Your task to perform on an android device: toggle priority inbox in the gmail app Image 0: 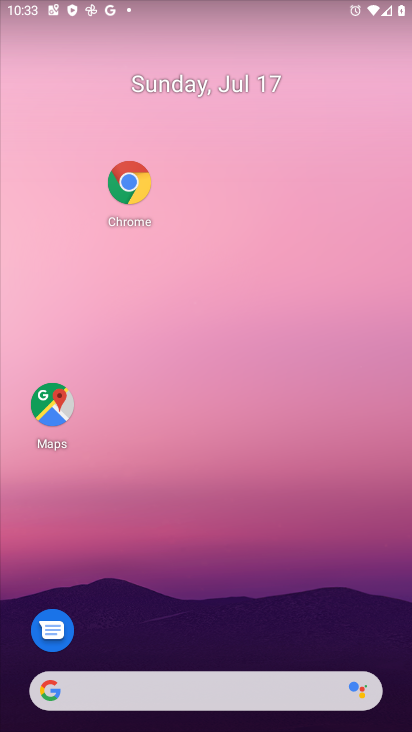
Step 0: drag from (174, 585) to (149, 46)
Your task to perform on an android device: toggle priority inbox in the gmail app Image 1: 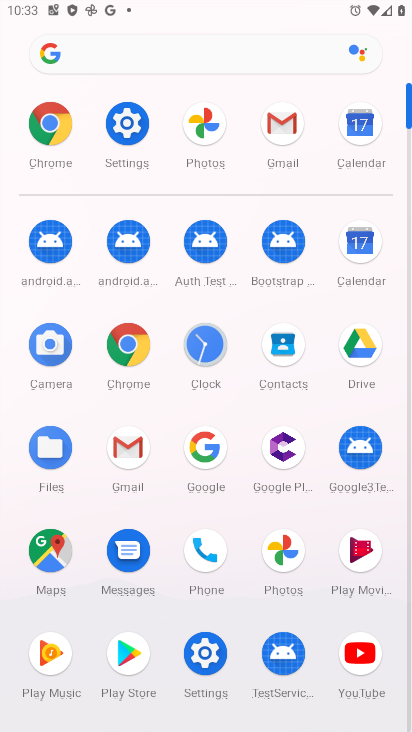
Step 1: click (283, 132)
Your task to perform on an android device: toggle priority inbox in the gmail app Image 2: 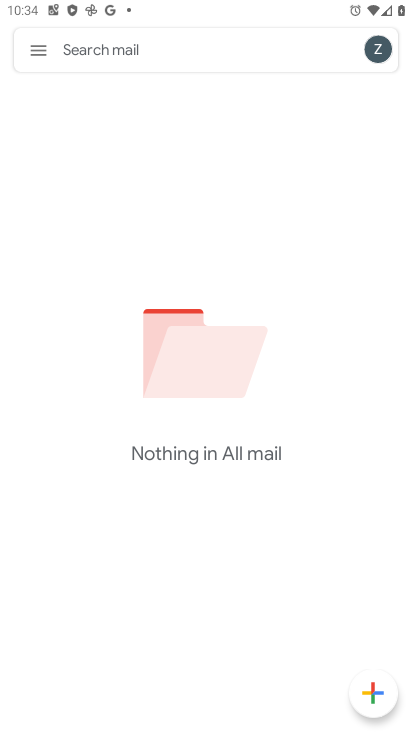
Step 2: click (35, 64)
Your task to perform on an android device: toggle priority inbox in the gmail app Image 3: 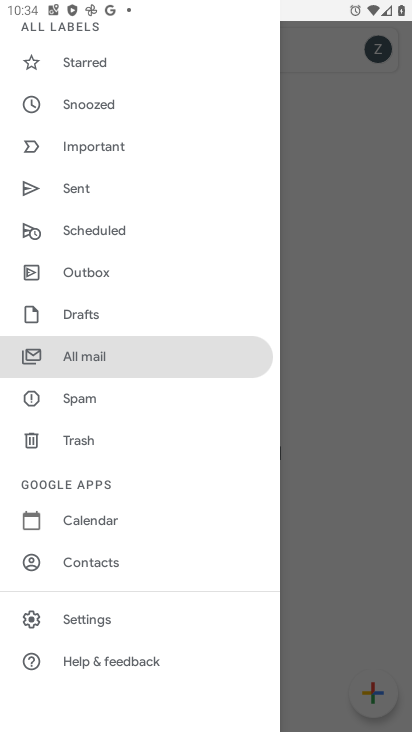
Step 3: click (74, 624)
Your task to perform on an android device: toggle priority inbox in the gmail app Image 4: 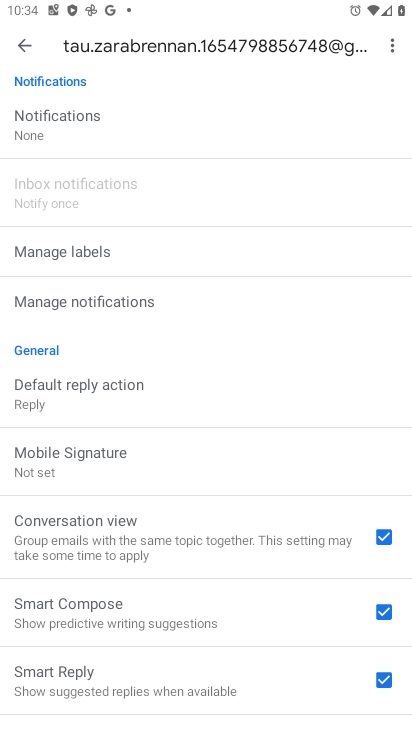
Step 4: drag from (215, 496) to (208, 308)
Your task to perform on an android device: toggle priority inbox in the gmail app Image 5: 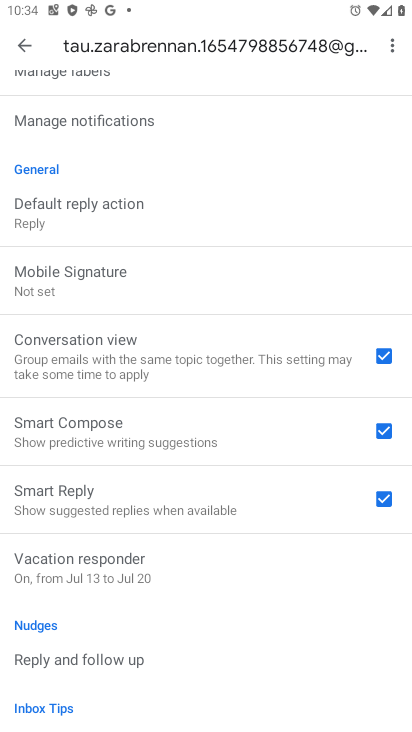
Step 5: drag from (246, 240) to (210, 543)
Your task to perform on an android device: toggle priority inbox in the gmail app Image 6: 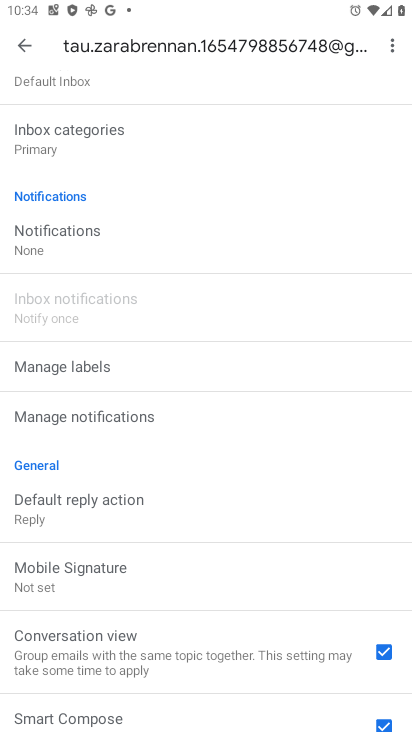
Step 6: drag from (213, 325) to (178, 510)
Your task to perform on an android device: toggle priority inbox in the gmail app Image 7: 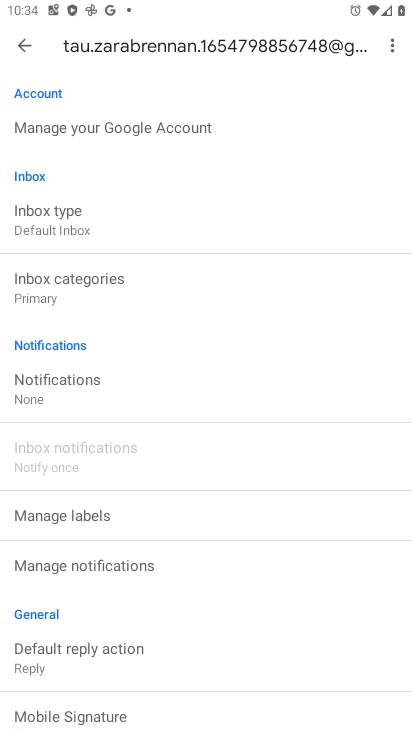
Step 7: drag from (204, 241) to (191, 455)
Your task to perform on an android device: toggle priority inbox in the gmail app Image 8: 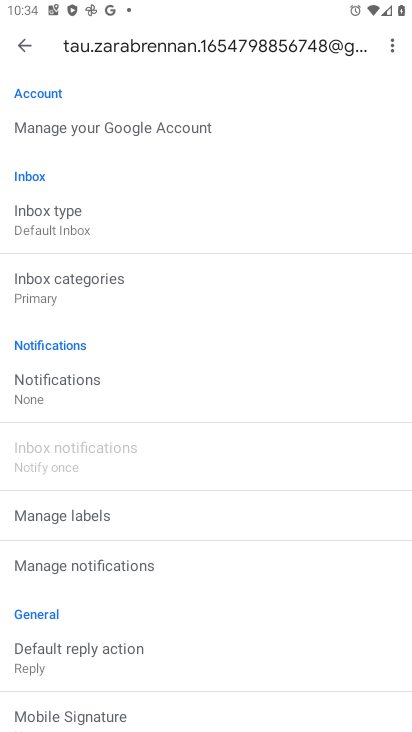
Step 8: click (53, 231)
Your task to perform on an android device: toggle priority inbox in the gmail app Image 9: 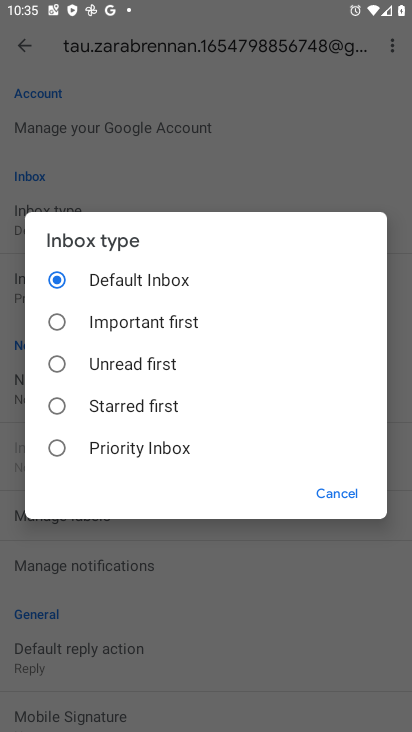
Step 9: click (59, 452)
Your task to perform on an android device: toggle priority inbox in the gmail app Image 10: 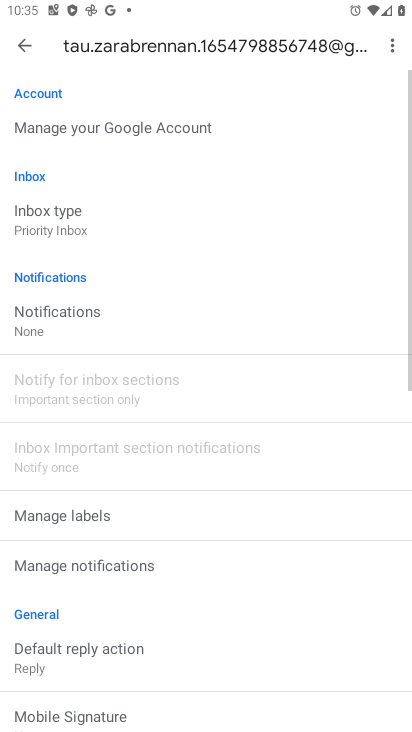
Step 10: task complete